Your task to perform on an android device: What is the recent news? Image 0: 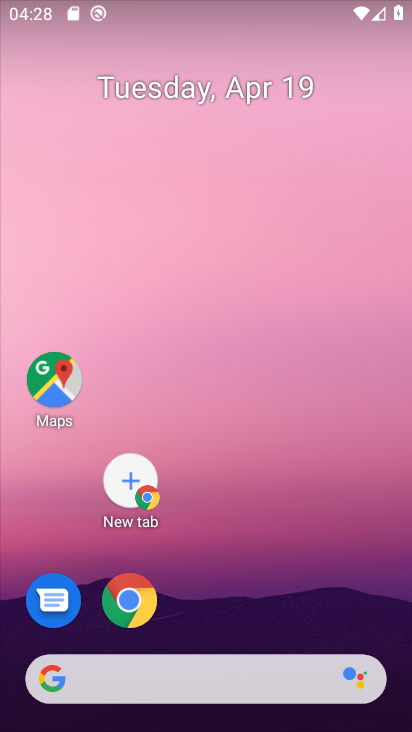
Step 0: click (175, 670)
Your task to perform on an android device: What is the recent news? Image 1: 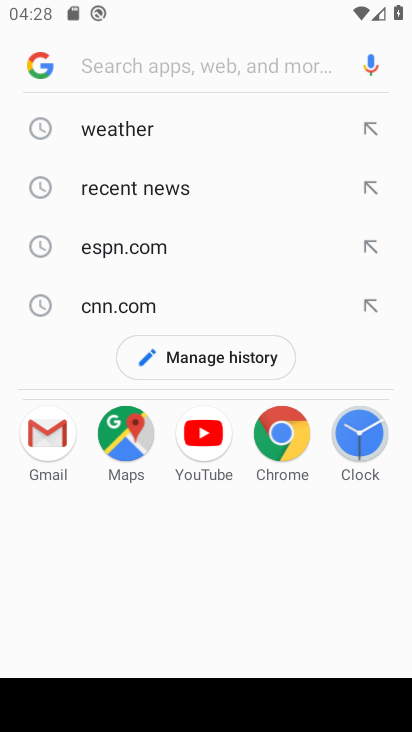
Step 1: click (50, 70)
Your task to perform on an android device: What is the recent news? Image 2: 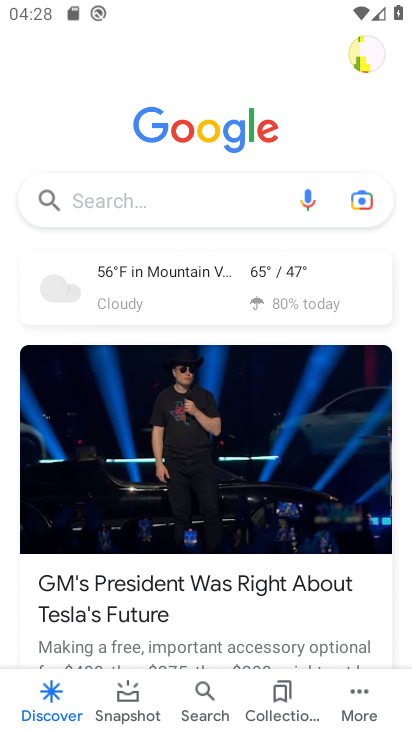
Step 2: task complete